Your task to perform on an android device: toggle priority inbox in the gmail app Image 0: 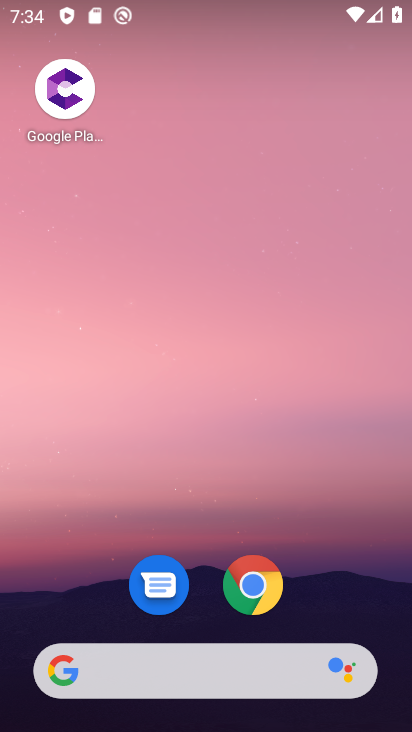
Step 0: drag from (329, 565) to (307, 19)
Your task to perform on an android device: toggle priority inbox in the gmail app Image 1: 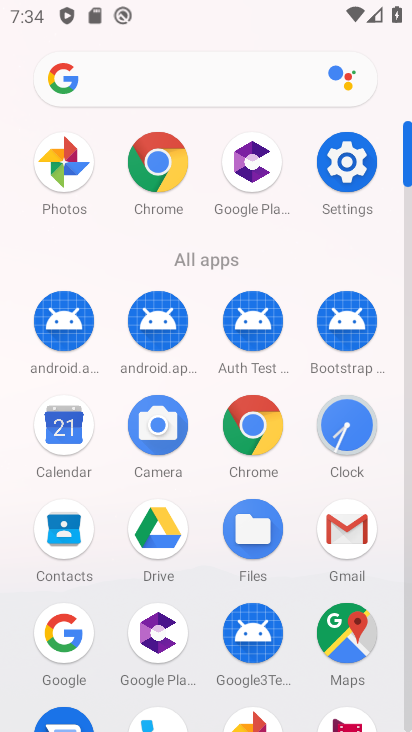
Step 1: click (350, 516)
Your task to perform on an android device: toggle priority inbox in the gmail app Image 2: 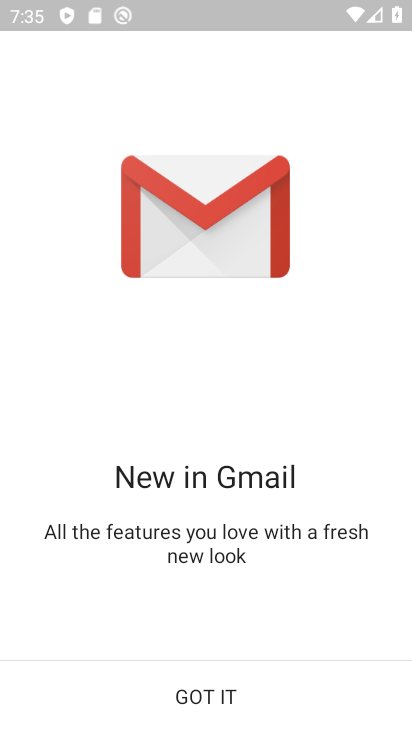
Step 2: click (229, 701)
Your task to perform on an android device: toggle priority inbox in the gmail app Image 3: 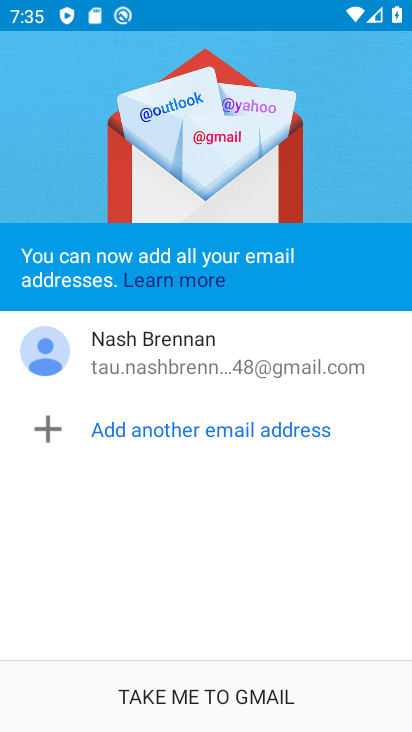
Step 3: click (228, 691)
Your task to perform on an android device: toggle priority inbox in the gmail app Image 4: 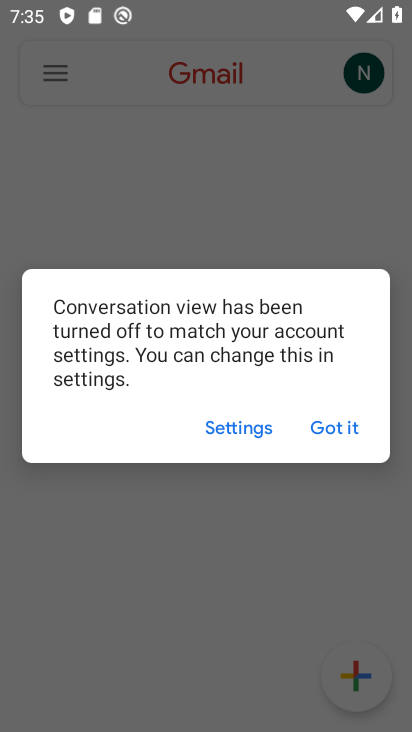
Step 4: click (329, 425)
Your task to perform on an android device: toggle priority inbox in the gmail app Image 5: 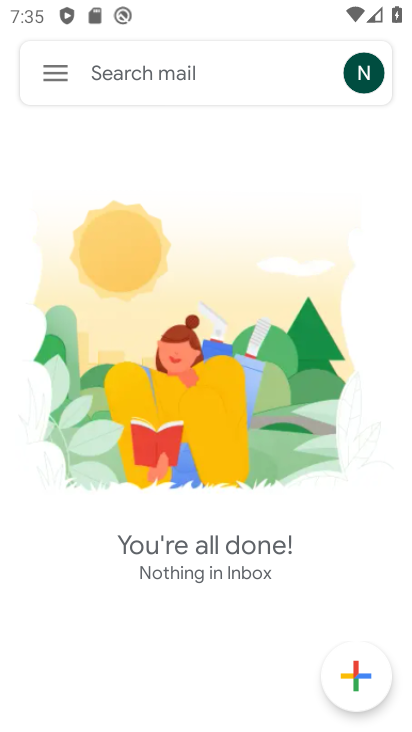
Step 5: click (58, 75)
Your task to perform on an android device: toggle priority inbox in the gmail app Image 6: 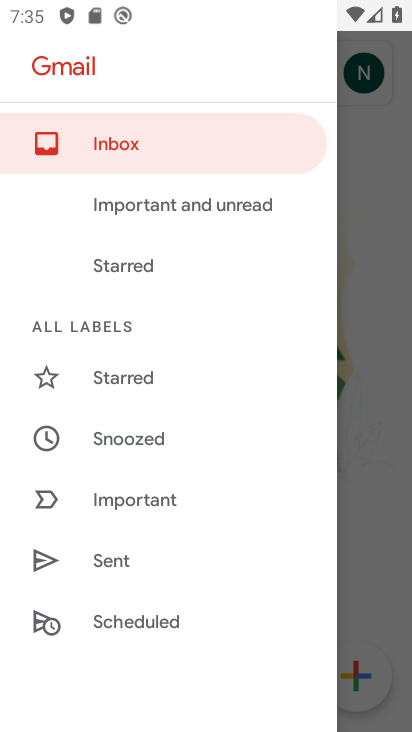
Step 6: drag from (162, 562) to (194, 76)
Your task to perform on an android device: toggle priority inbox in the gmail app Image 7: 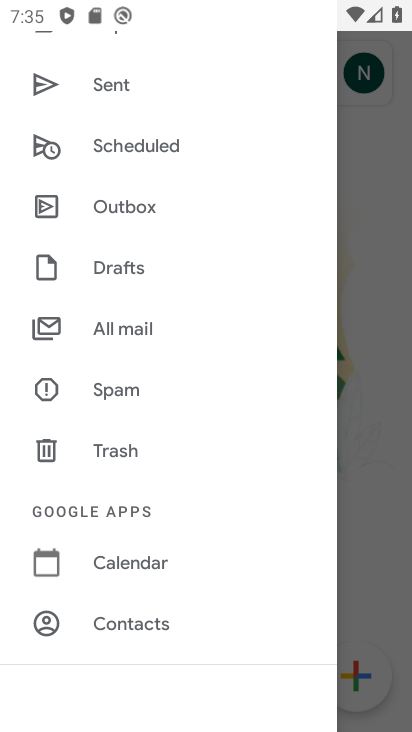
Step 7: drag from (184, 428) to (205, 166)
Your task to perform on an android device: toggle priority inbox in the gmail app Image 8: 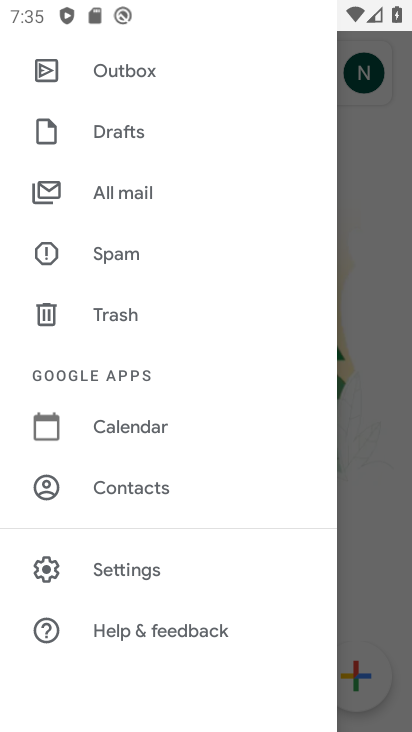
Step 8: click (141, 559)
Your task to perform on an android device: toggle priority inbox in the gmail app Image 9: 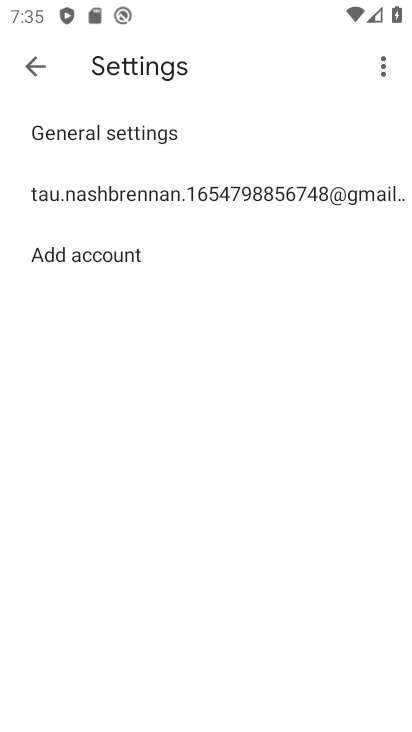
Step 9: click (200, 194)
Your task to perform on an android device: toggle priority inbox in the gmail app Image 10: 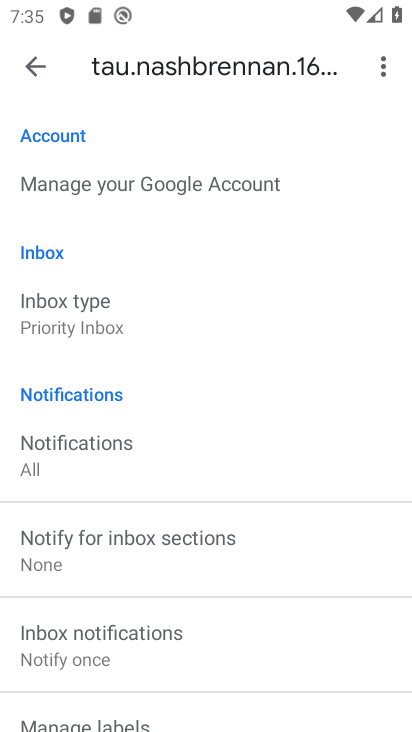
Step 10: click (105, 315)
Your task to perform on an android device: toggle priority inbox in the gmail app Image 11: 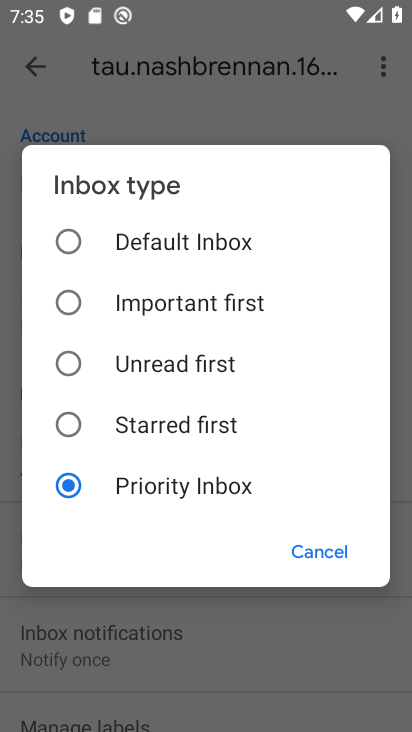
Step 11: click (73, 241)
Your task to perform on an android device: toggle priority inbox in the gmail app Image 12: 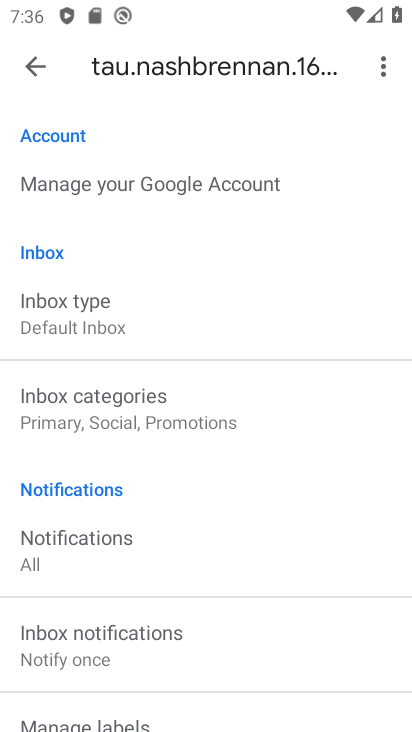
Step 12: task complete